Your task to perform on an android device: Open Google Maps Image 0: 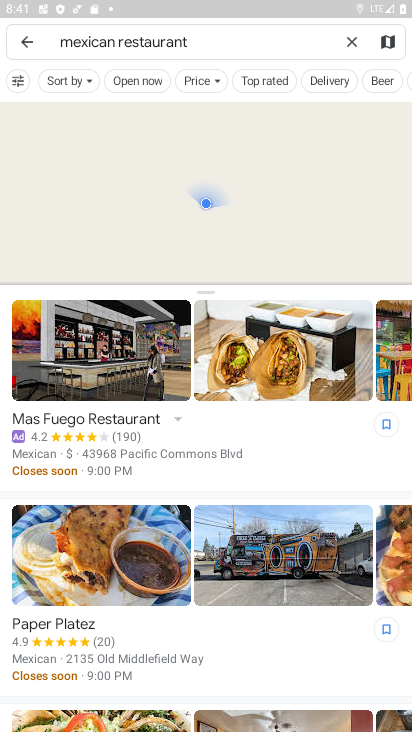
Step 0: press home button
Your task to perform on an android device: Open Google Maps Image 1: 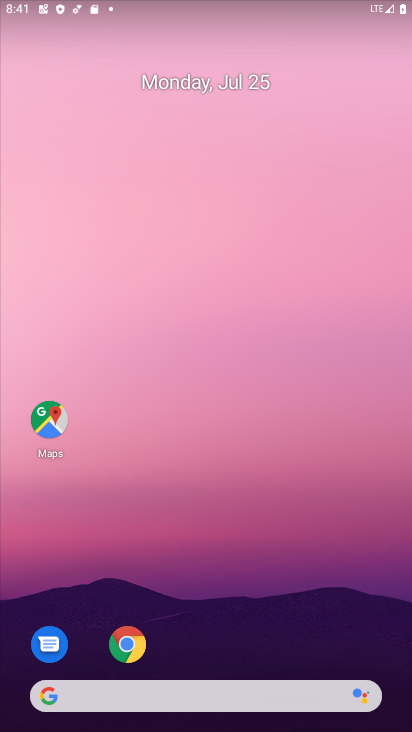
Step 1: drag from (231, 555) to (225, 192)
Your task to perform on an android device: Open Google Maps Image 2: 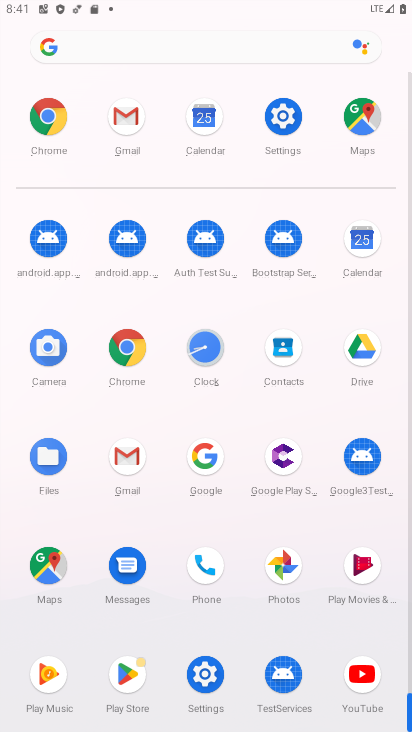
Step 2: click (202, 455)
Your task to perform on an android device: Open Google Maps Image 3: 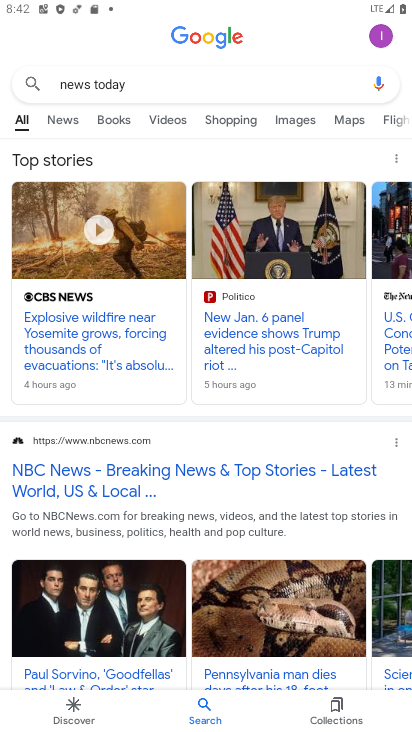
Step 3: press home button
Your task to perform on an android device: Open Google Maps Image 4: 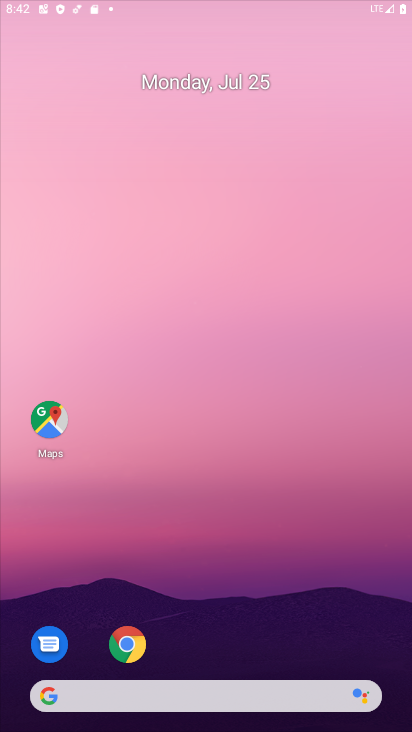
Step 4: drag from (281, 579) to (248, 59)
Your task to perform on an android device: Open Google Maps Image 5: 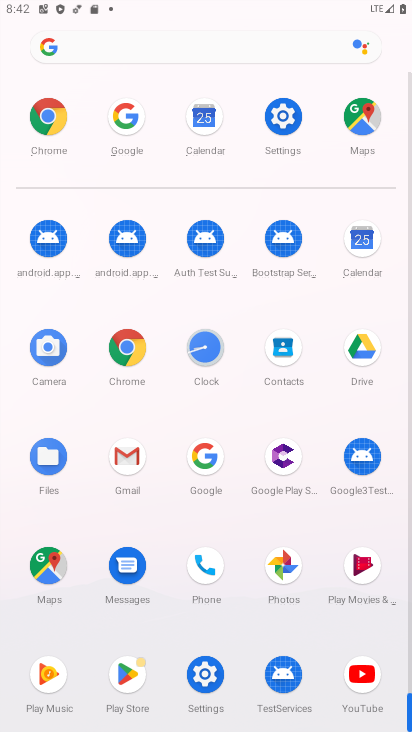
Step 5: click (46, 587)
Your task to perform on an android device: Open Google Maps Image 6: 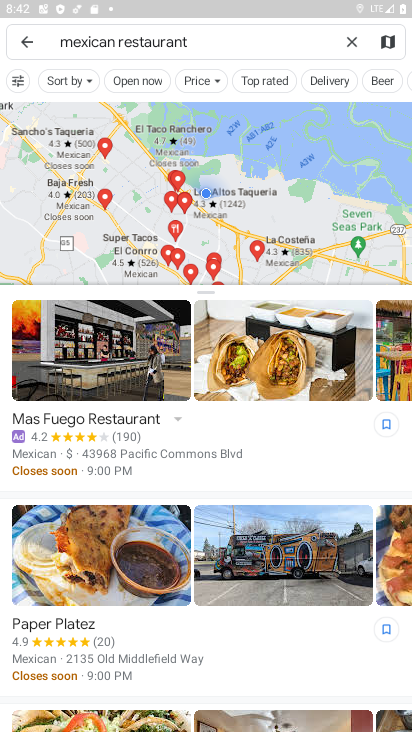
Step 6: task complete